Your task to perform on an android device: install app "TextNow: Call + Text Unlimited" Image 0: 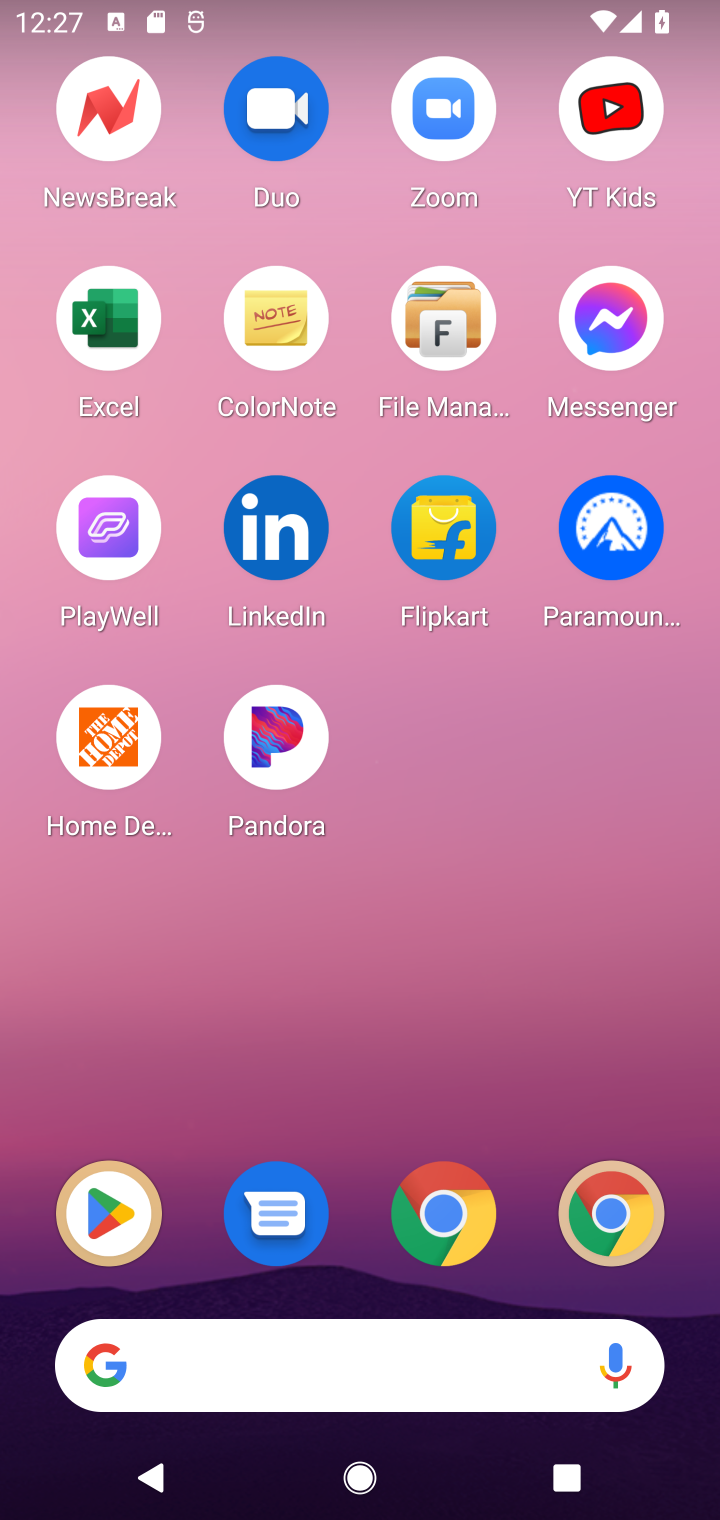
Step 0: drag from (114, 937) to (482, 987)
Your task to perform on an android device: install app "TextNow: Call + Text Unlimited" Image 1: 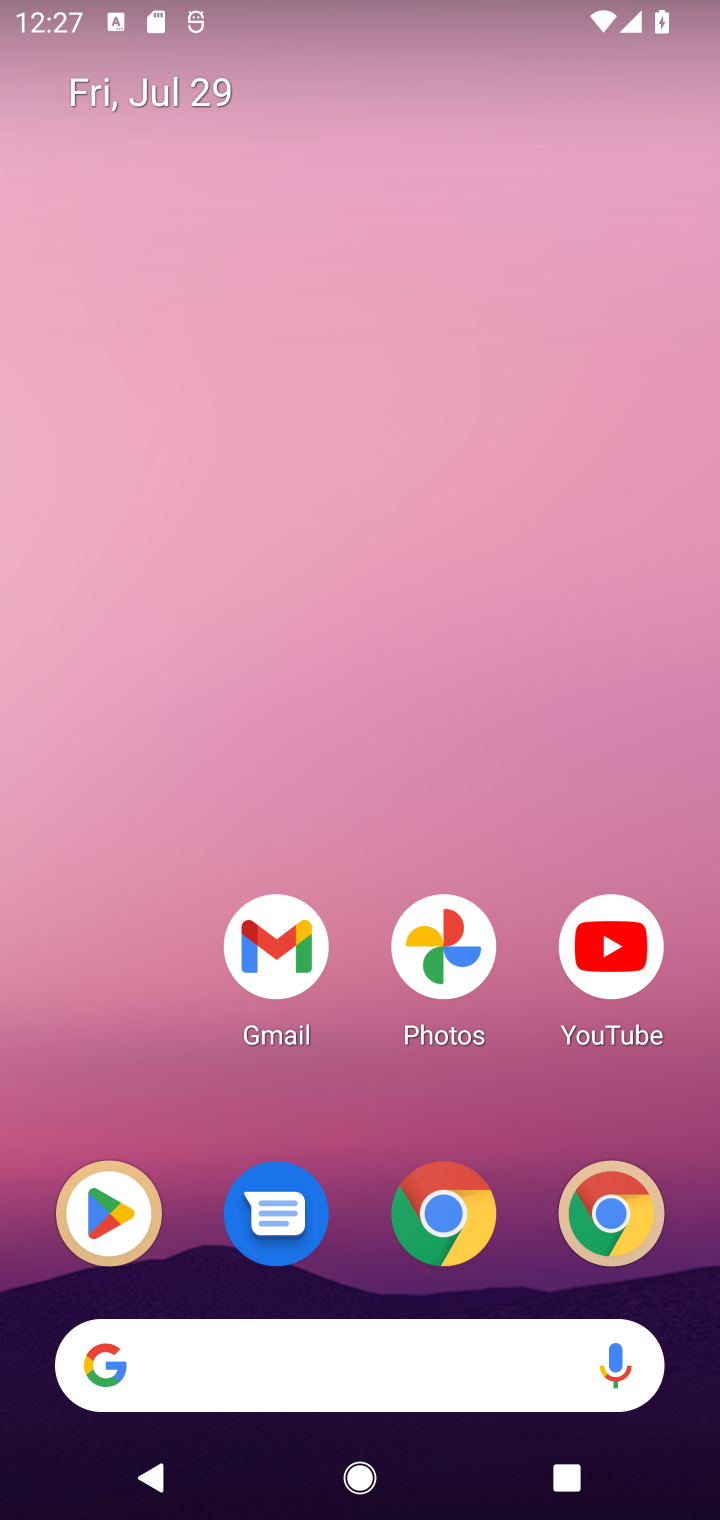
Step 1: drag from (283, 1501) to (314, 13)
Your task to perform on an android device: install app "TextNow: Call + Text Unlimited" Image 2: 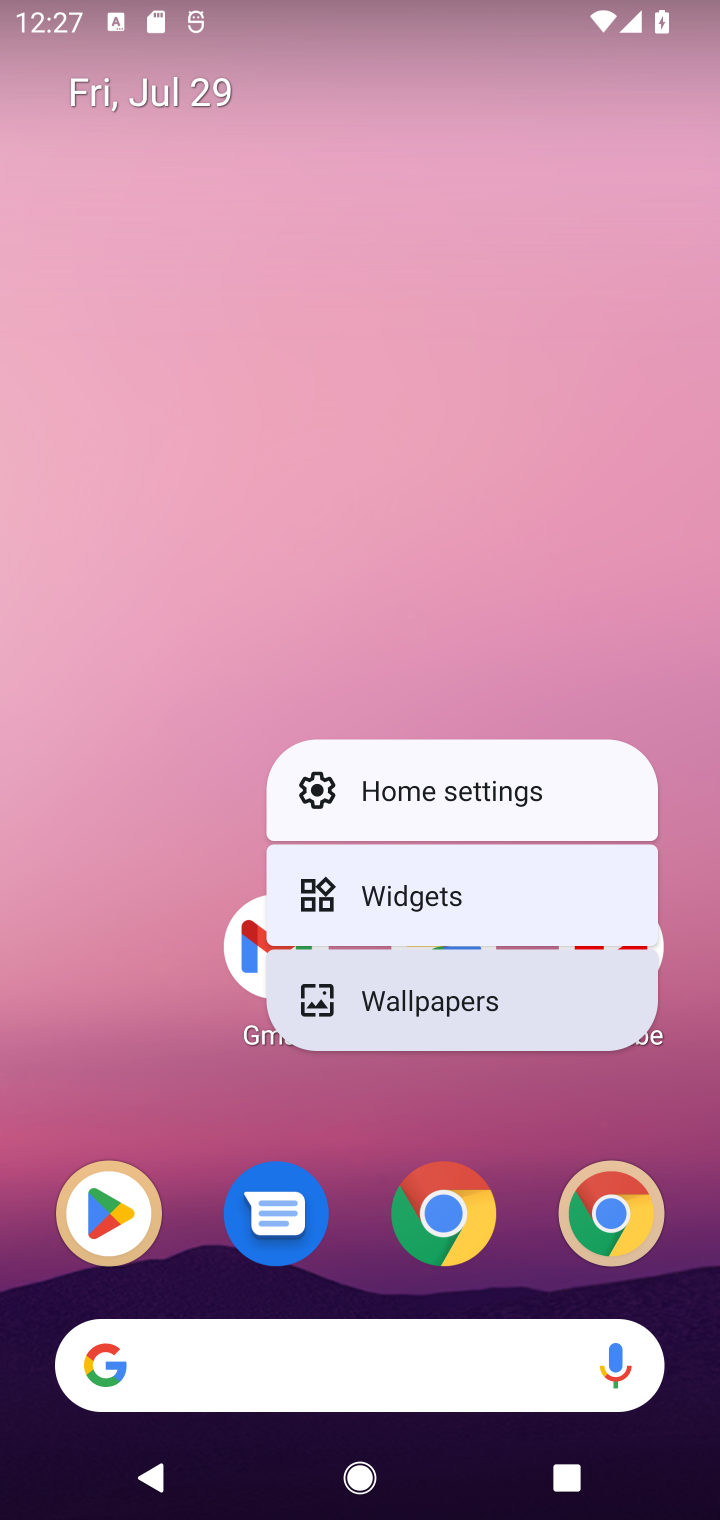
Step 2: click (325, 570)
Your task to perform on an android device: install app "TextNow: Call + Text Unlimited" Image 3: 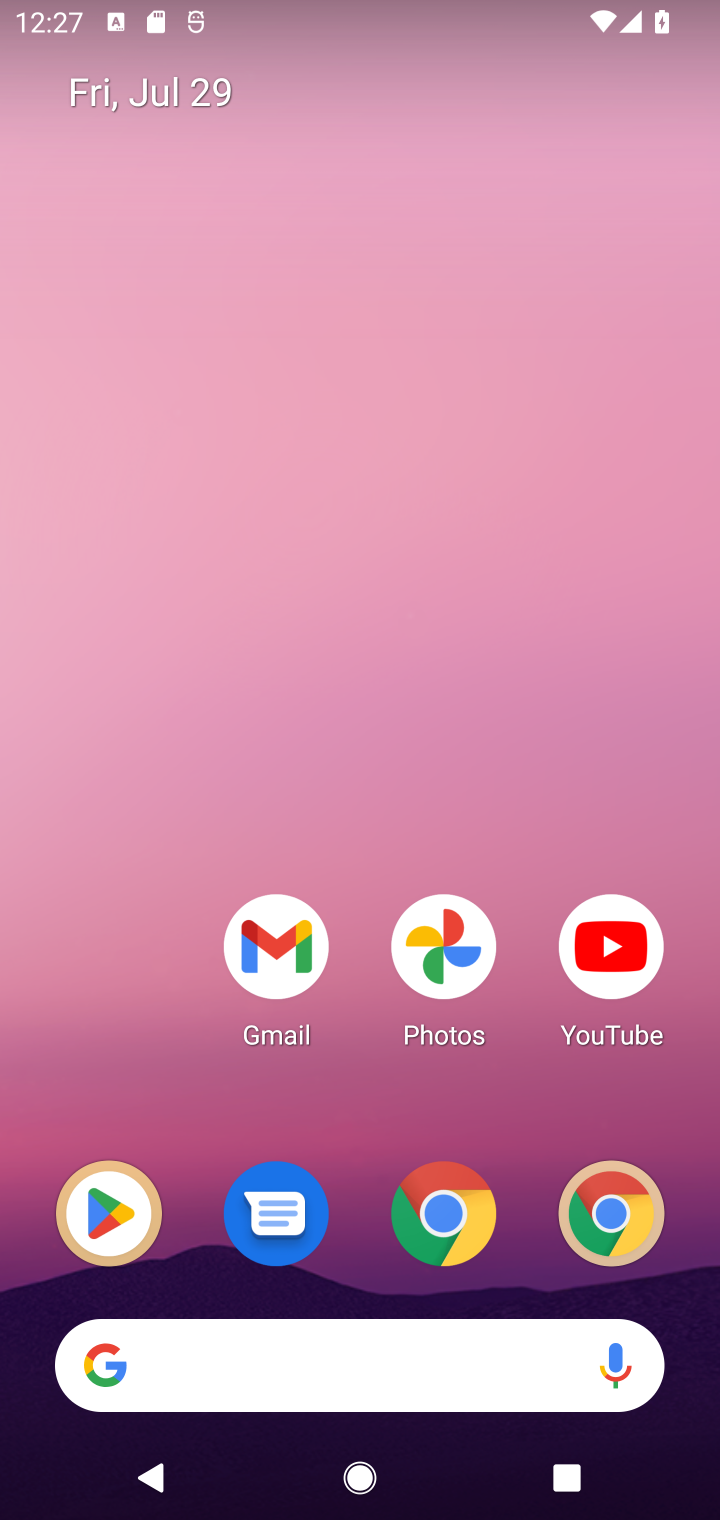
Step 3: drag from (426, 1436) to (408, 18)
Your task to perform on an android device: install app "TextNow: Call + Text Unlimited" Image 4: 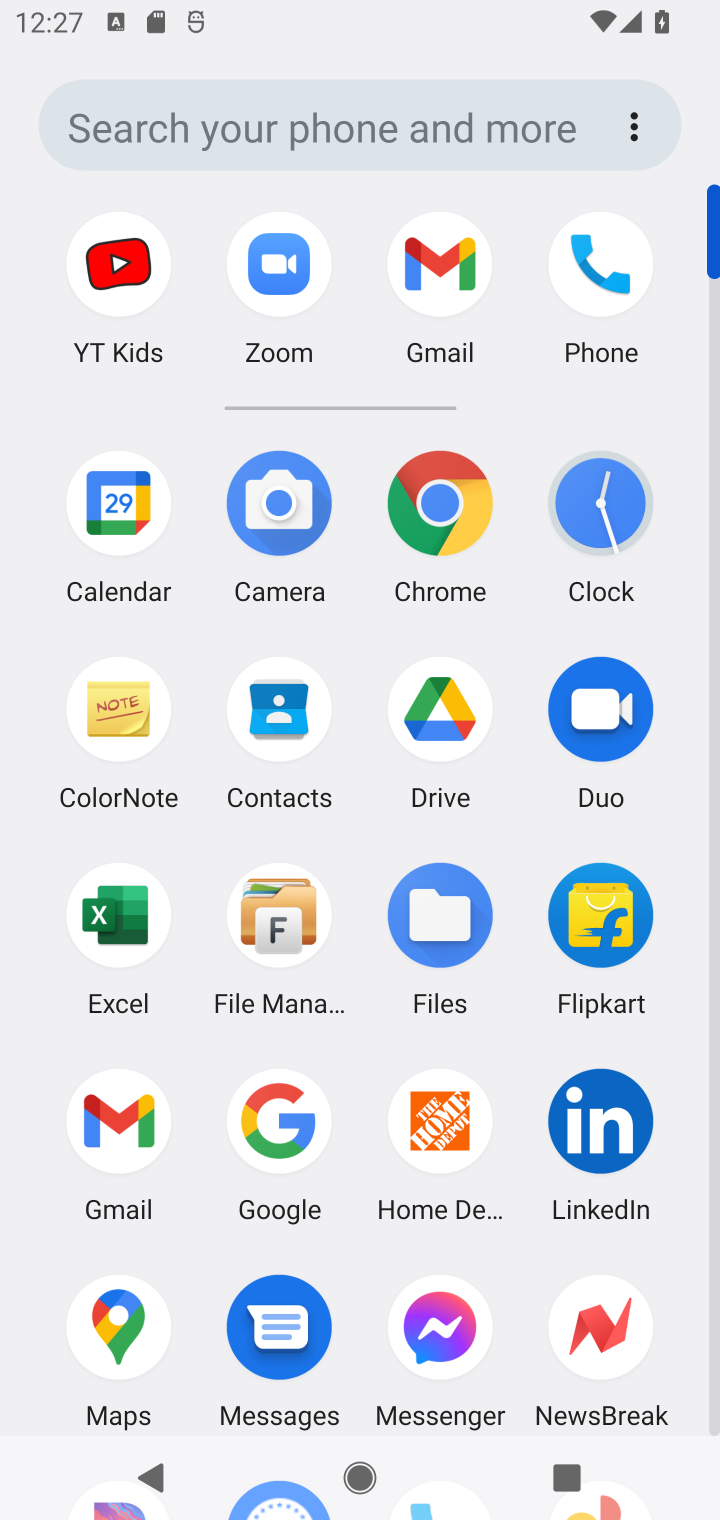
Step 4: drag from (387, 1343) to (374, 402)
Your task to perform on an android device: install app "TextNow: Call + Text Unlimited" Image 5: 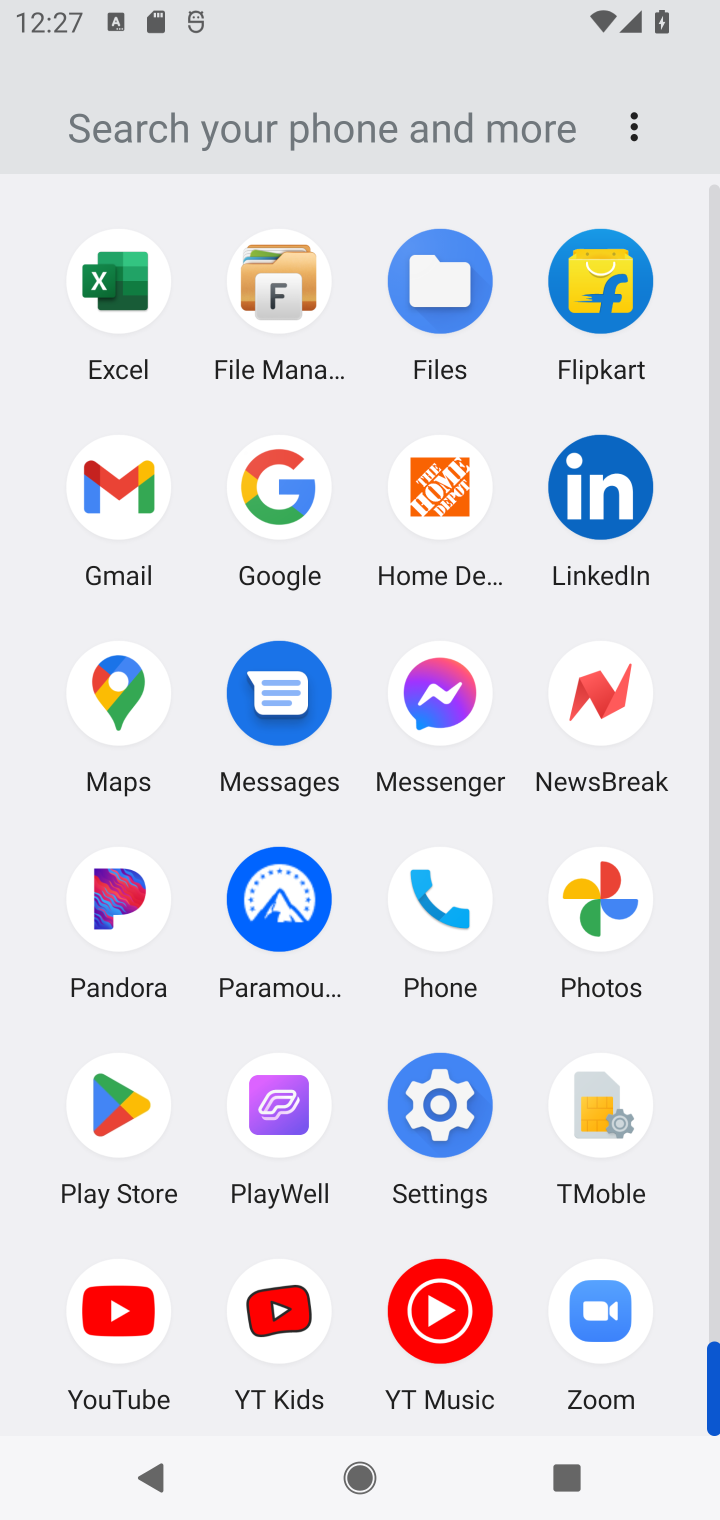
Step 5: click (125, 1114)
Your task to perform on an android device: install app "TextNow: Call + Text Unlimited" Image 6: 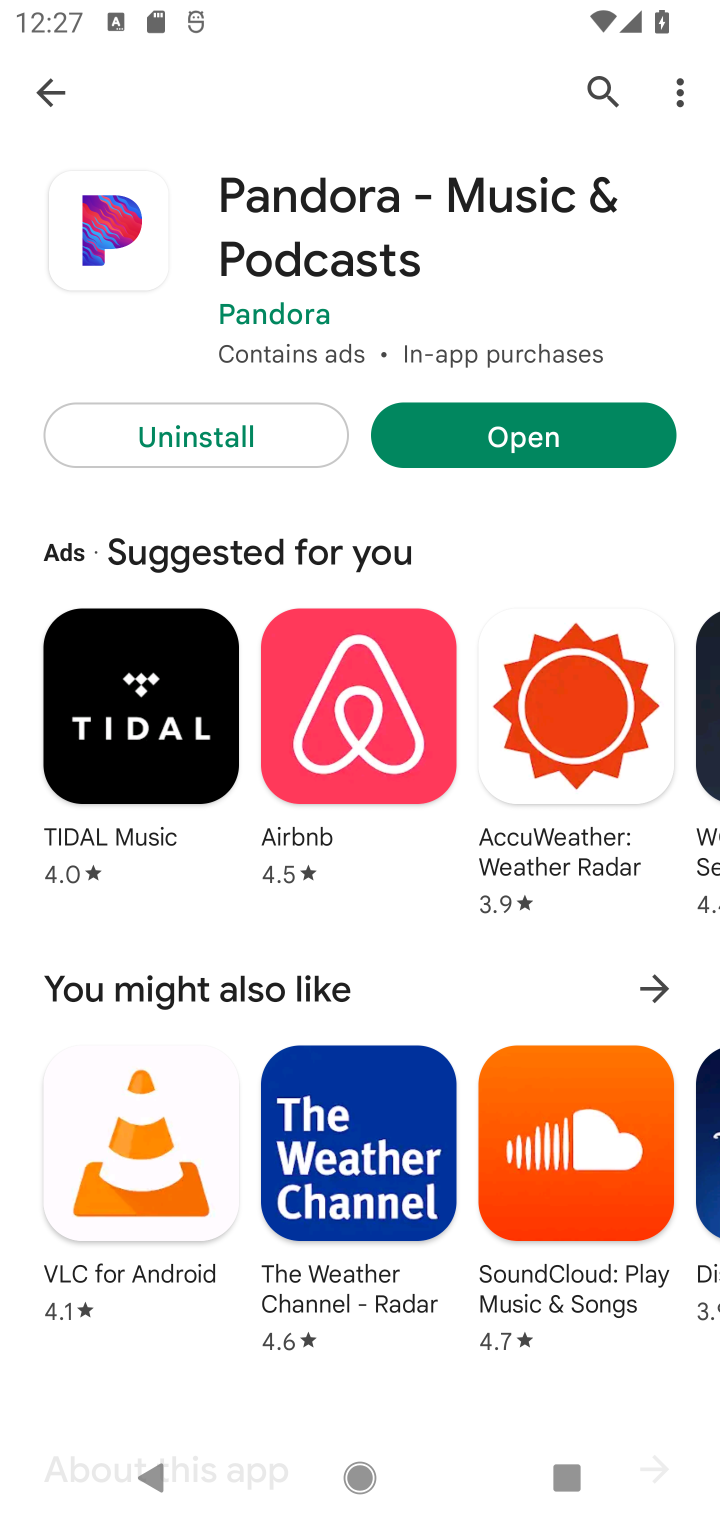
Step 6: click (597, 97)
Your task to perform on an android device: install app "TextNow: Call + Text Unlimited" Image 7: 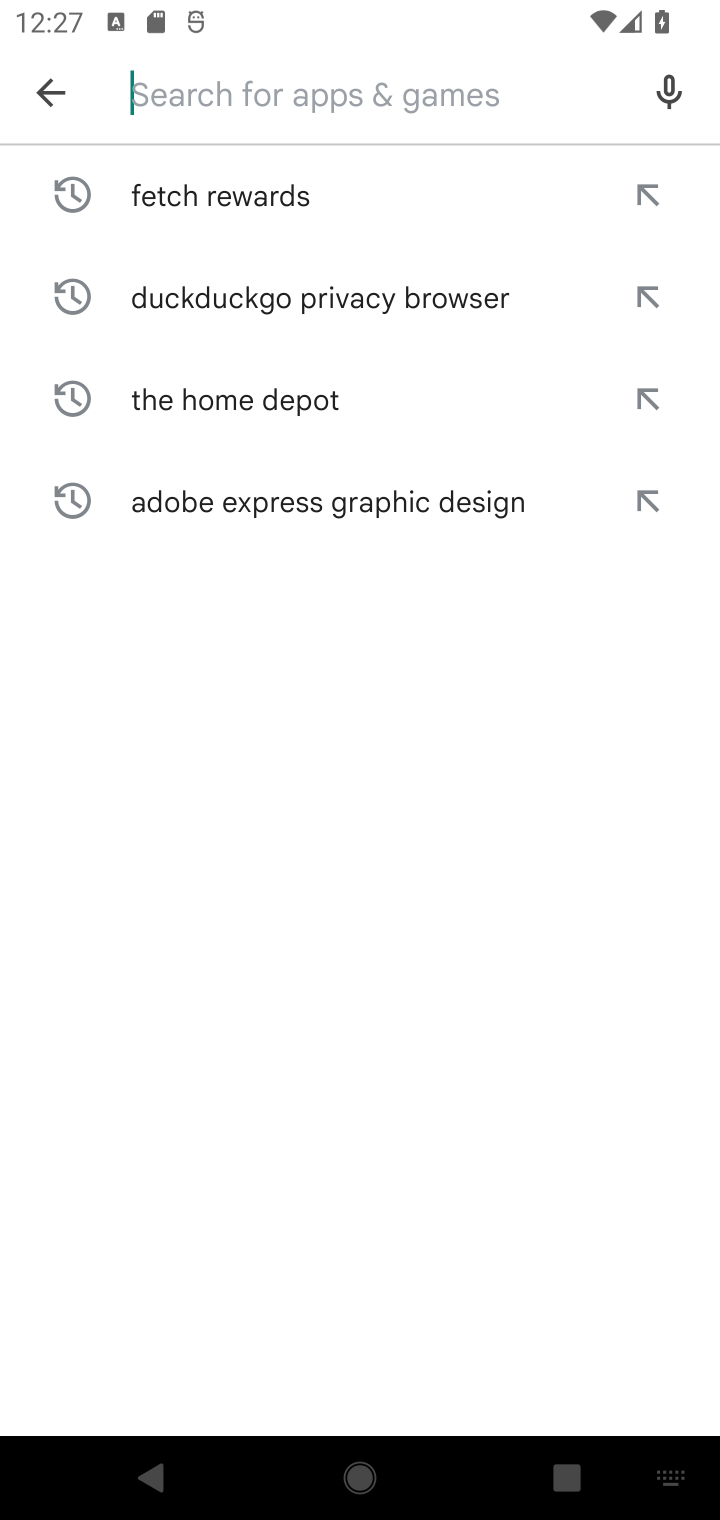
Step 7: type "TextNow: Call + Text Unlimited"
Your task to perform on an android device: install app "TextNow: Call + Text Unlimited" Image 8: 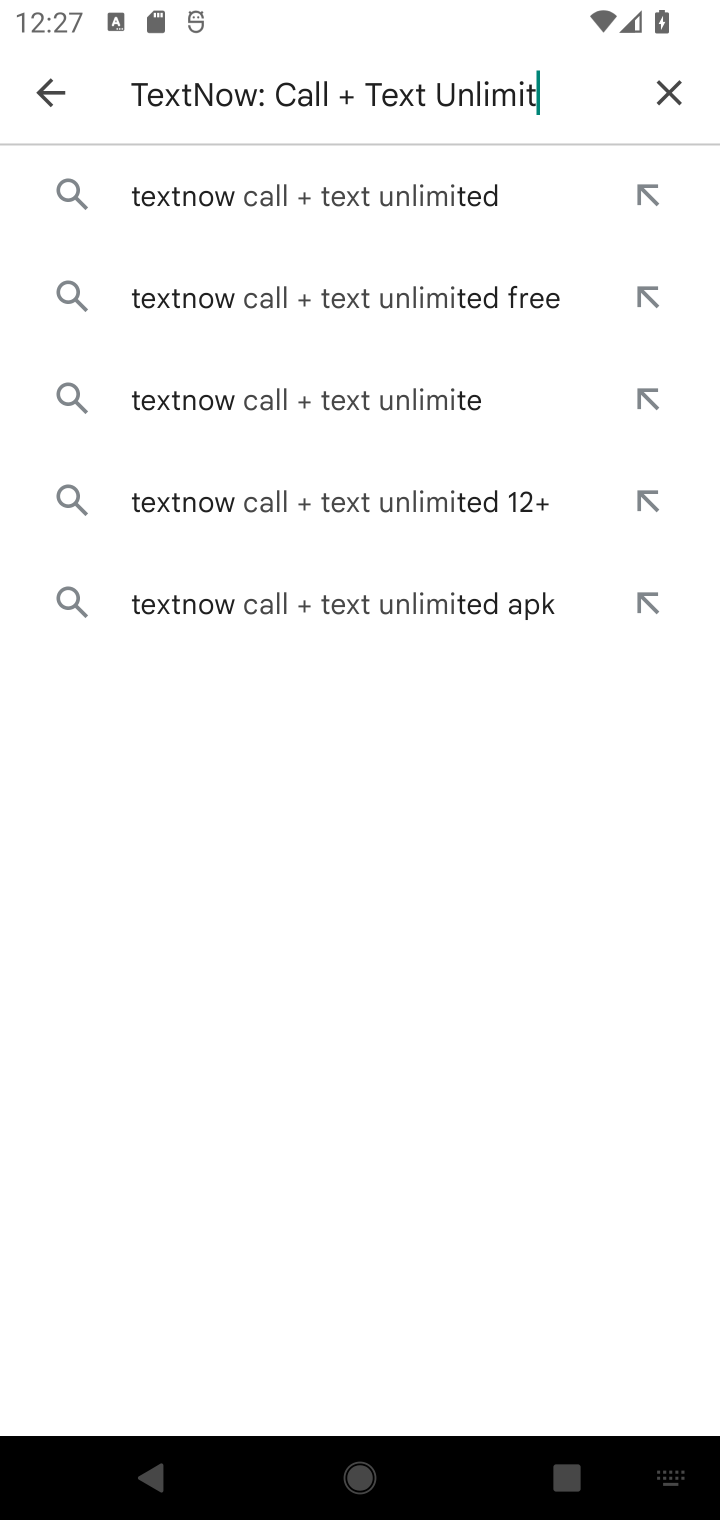
Step 8: type ""
Your task to perform on an android device: install app "TextNow: Call + Text Unlimited" Image 9: 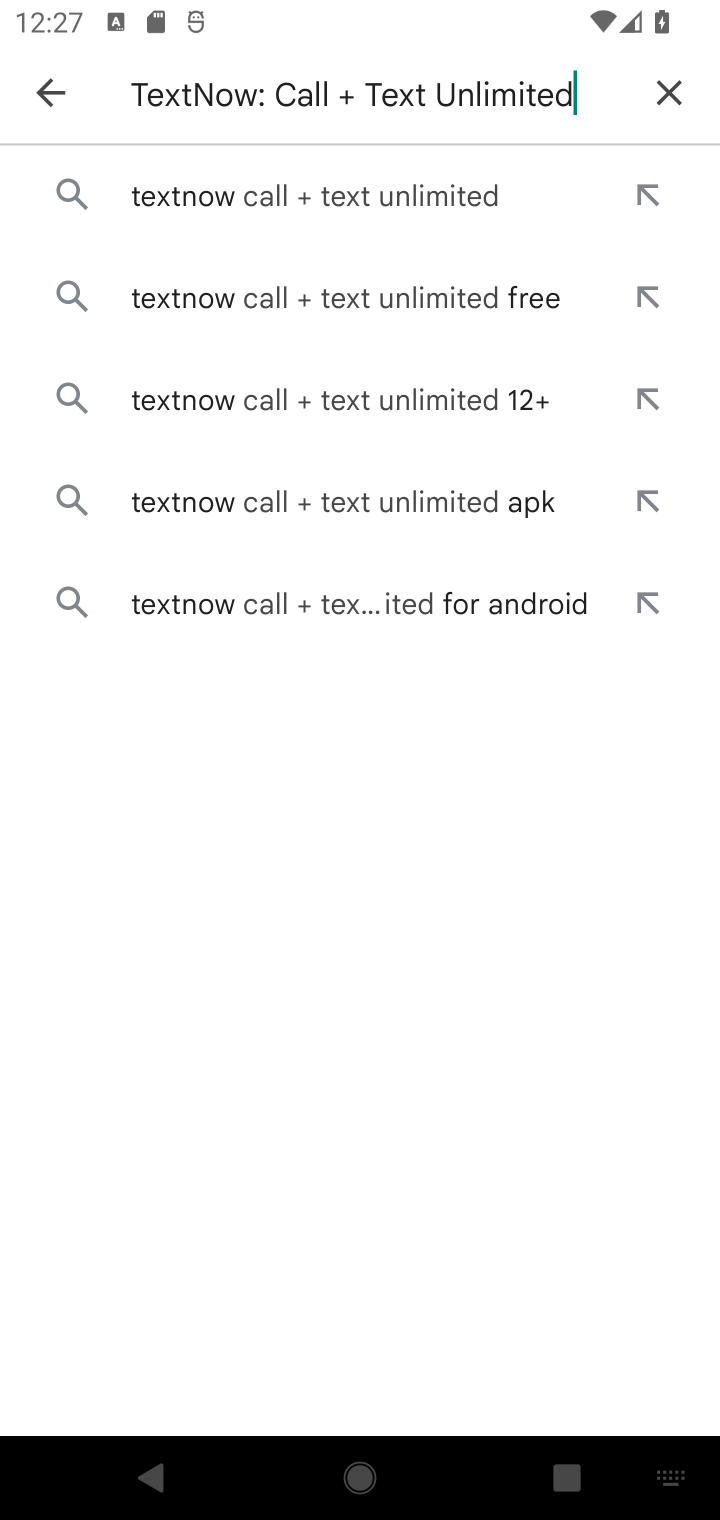
Step 9: click (312, 193)
Your task to perform on an android device: install app "TextNow: Call + Text Unlimited" Image 10: 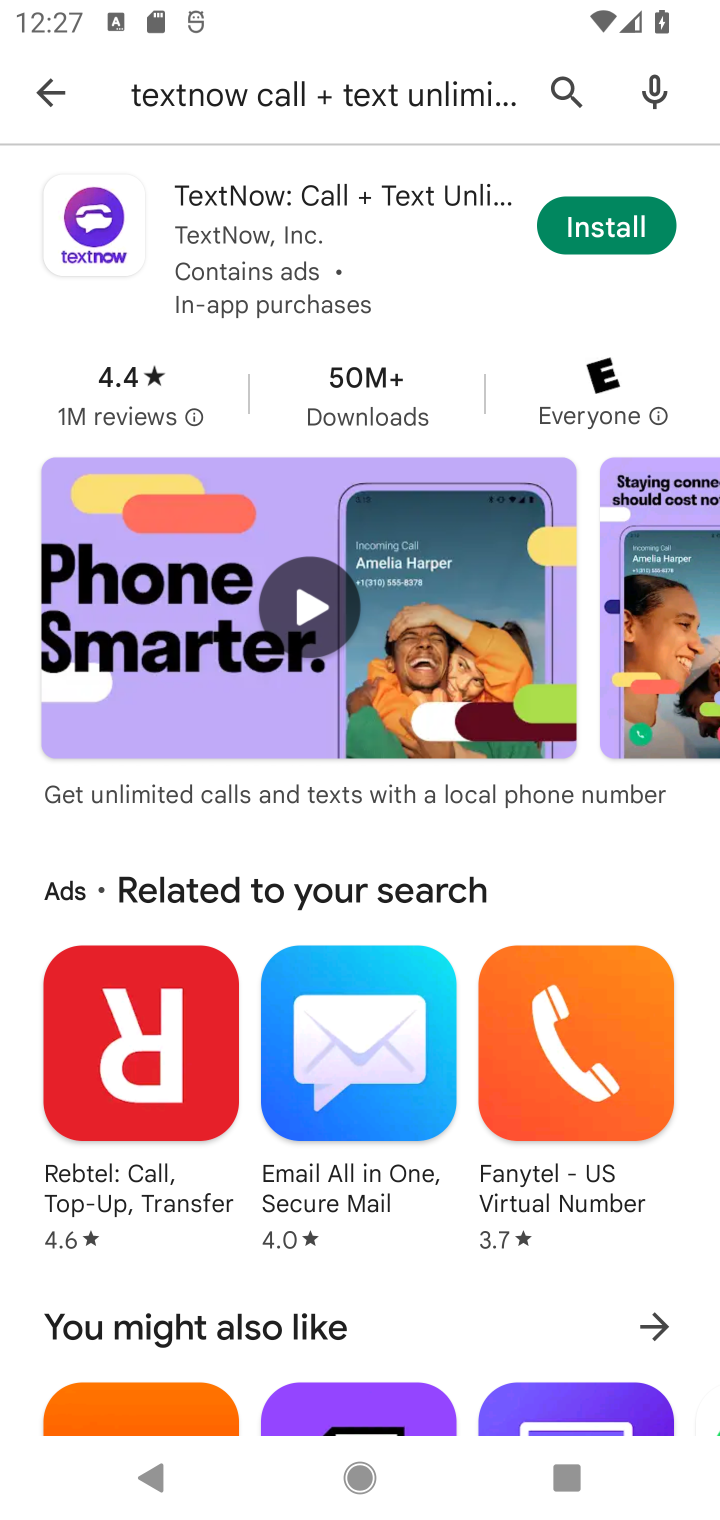
Step 10: click (583, 225)
Your task to perform on an android device: install app "TextNow: Call + Text Unlimited" Image 11: 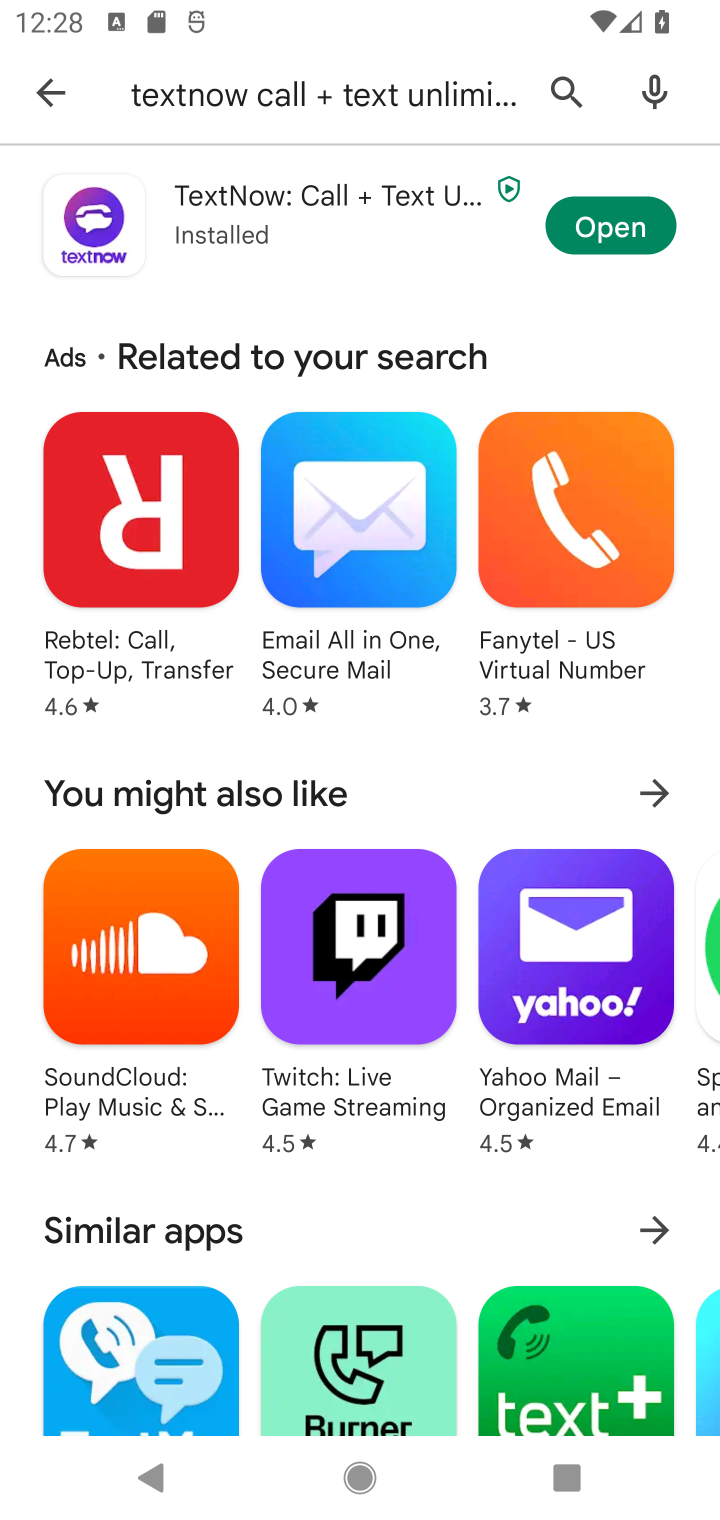
Step 11: task complete